Your task to perform on an android device: Clear the cart on ebay.com. Image 0: 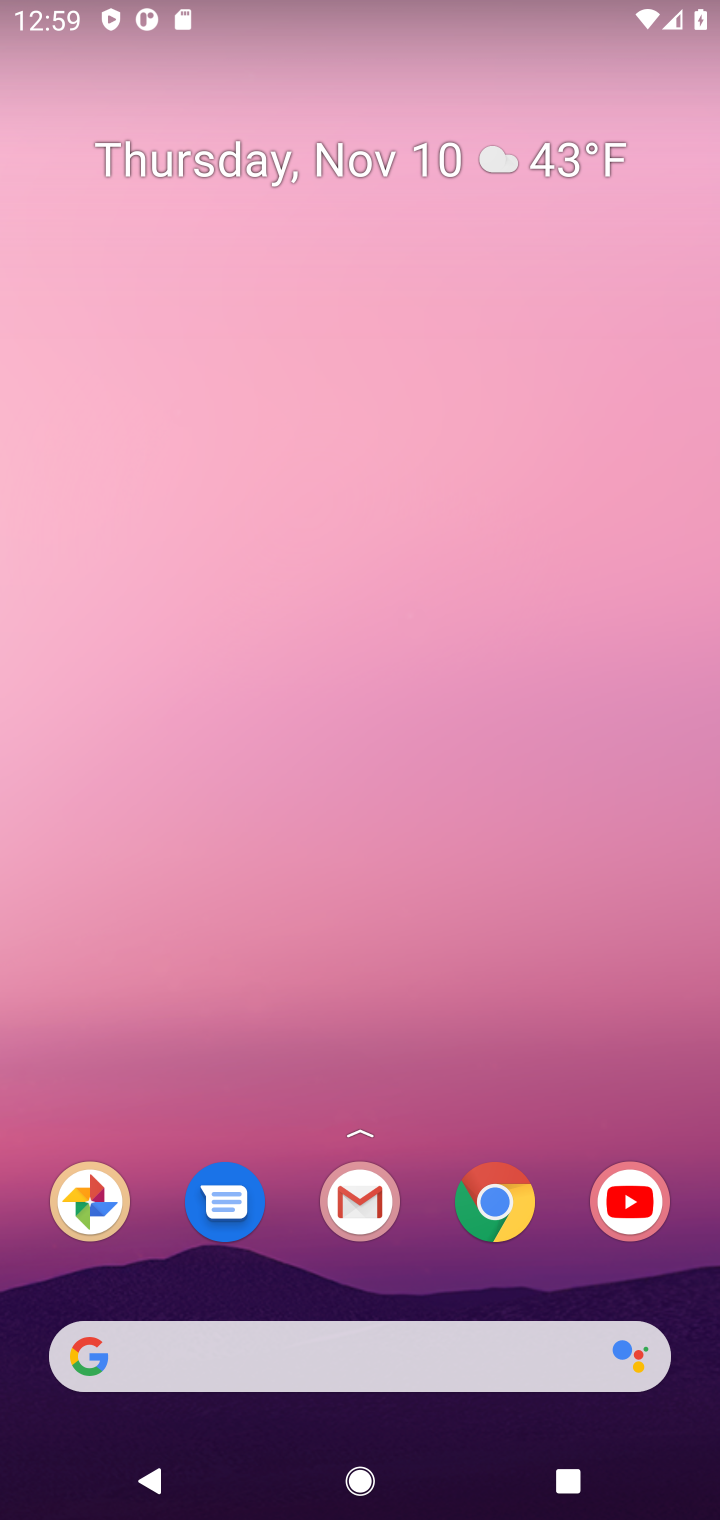
Step 0: click (499, 1214)
Your task to perform on an android device: Clear the cart on ebay.com. Image 1: 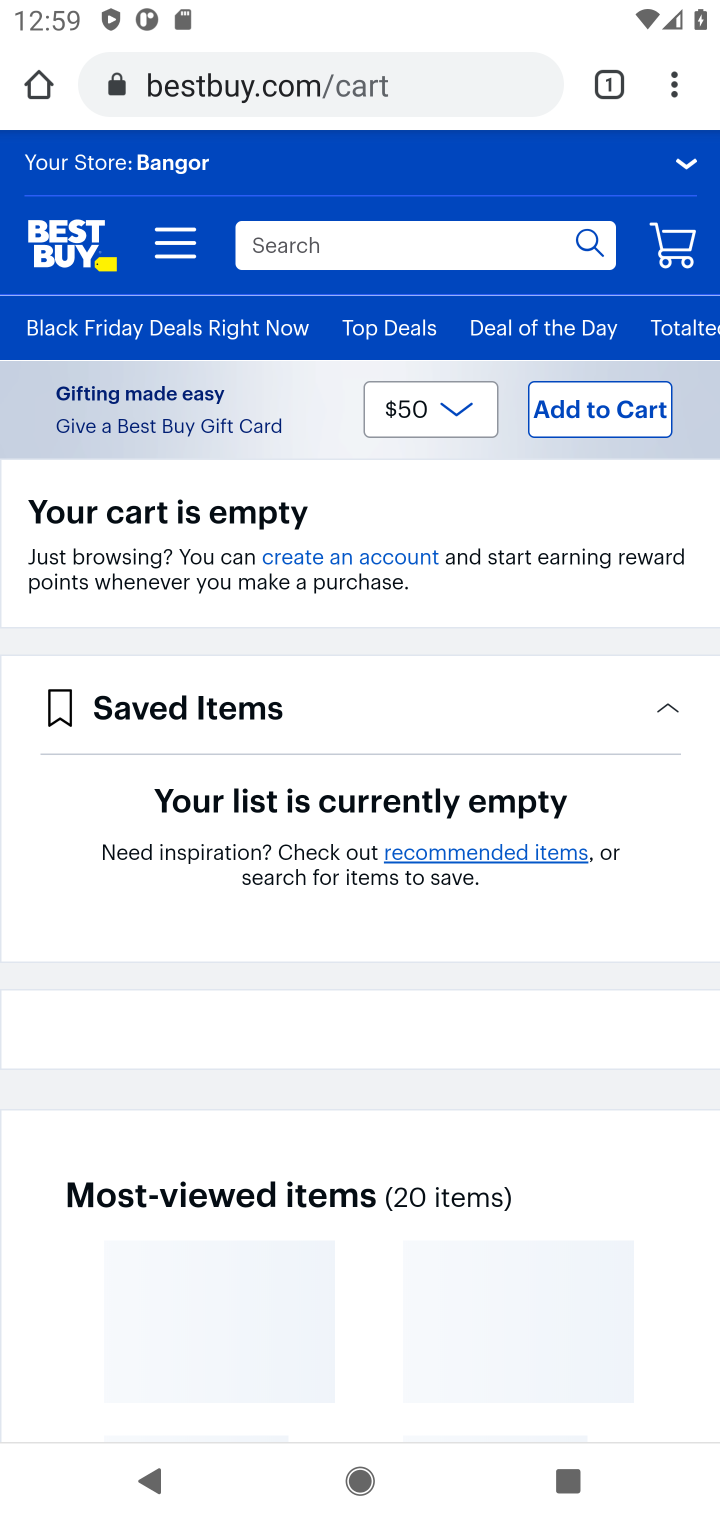
Step 1: click (36, 94)
Your task to perform on an android device: Clear the cart on ebay.com. Image 2: 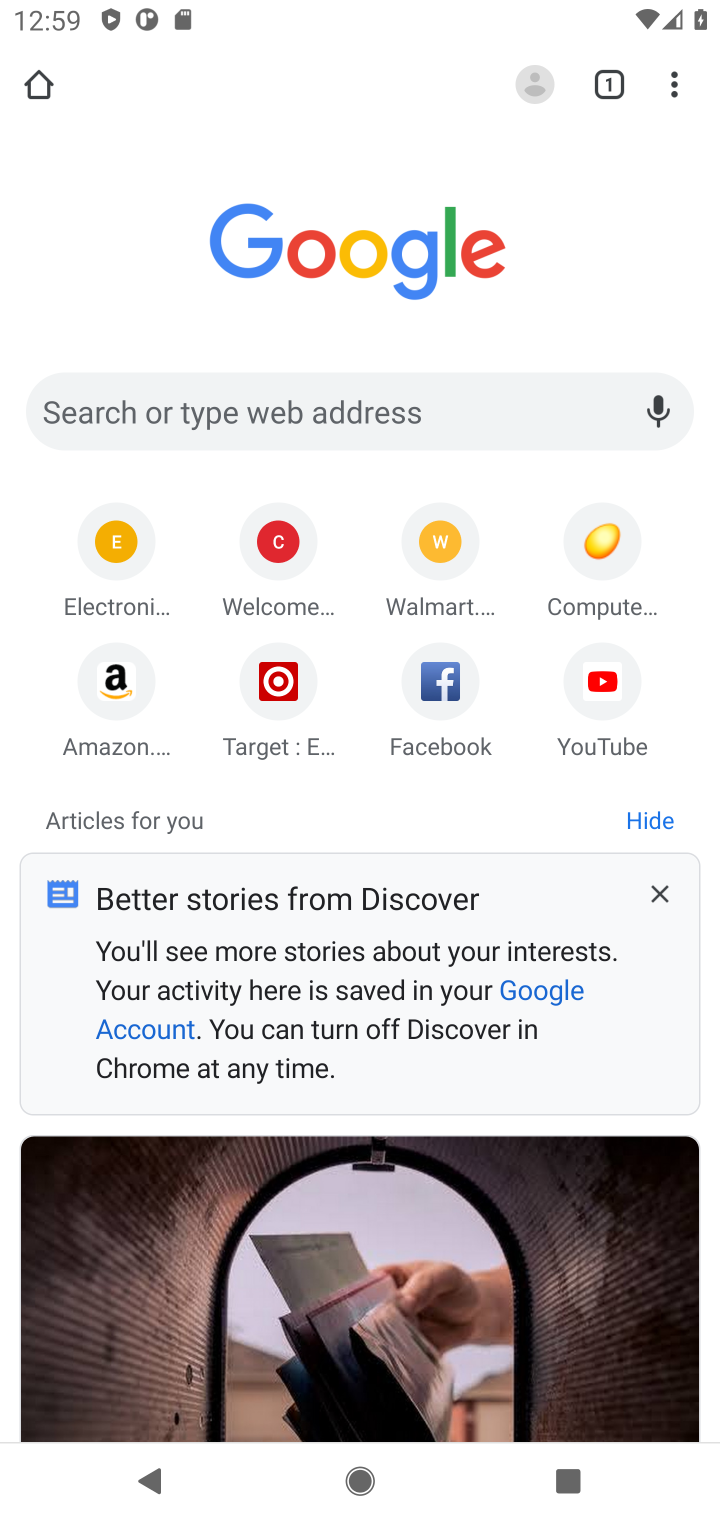
Step 2: click (434, 402)
Your task to perform on an android device: Clear the cart on ebay.com. Image 3: 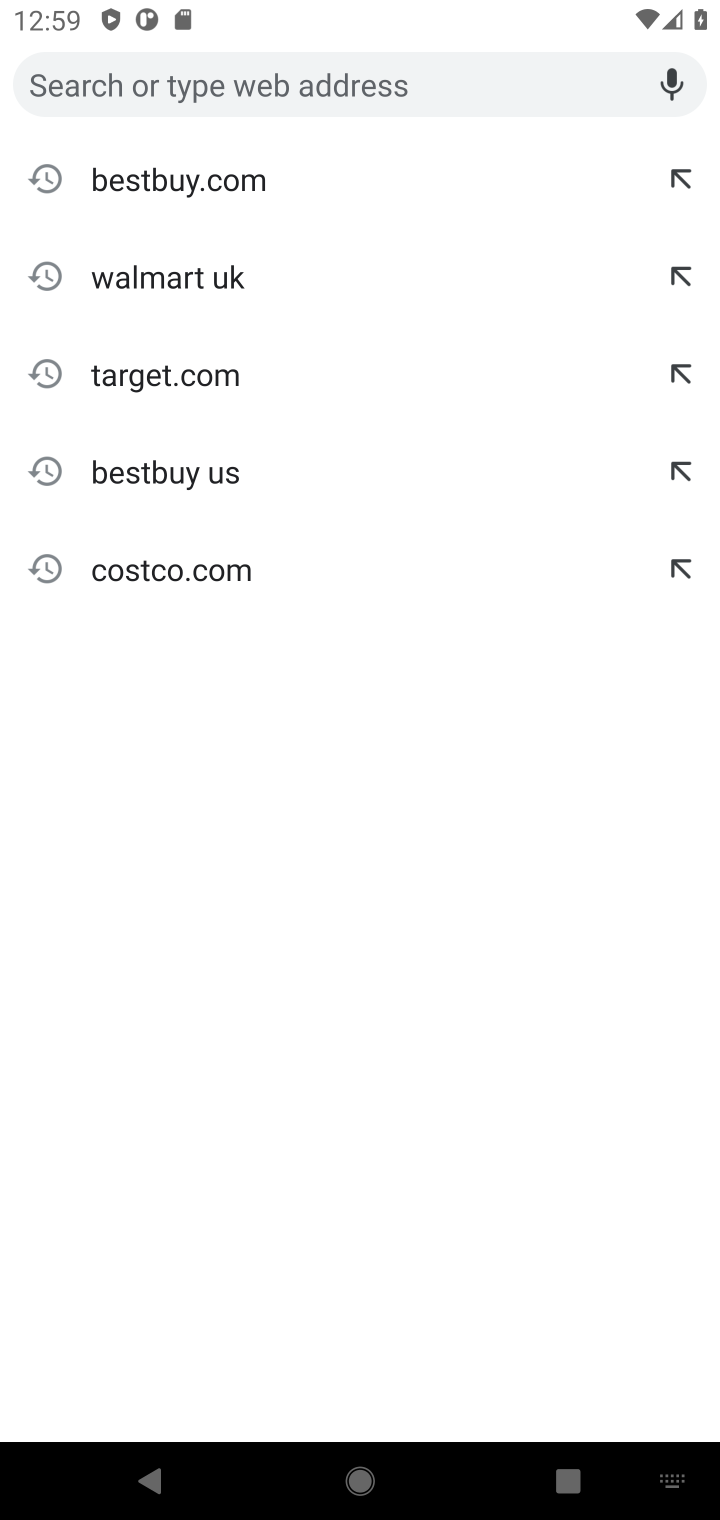
Step 3: type "ebay.com"
Your task to perform on an android device: Clear the cart on ebay.com. Image 4: 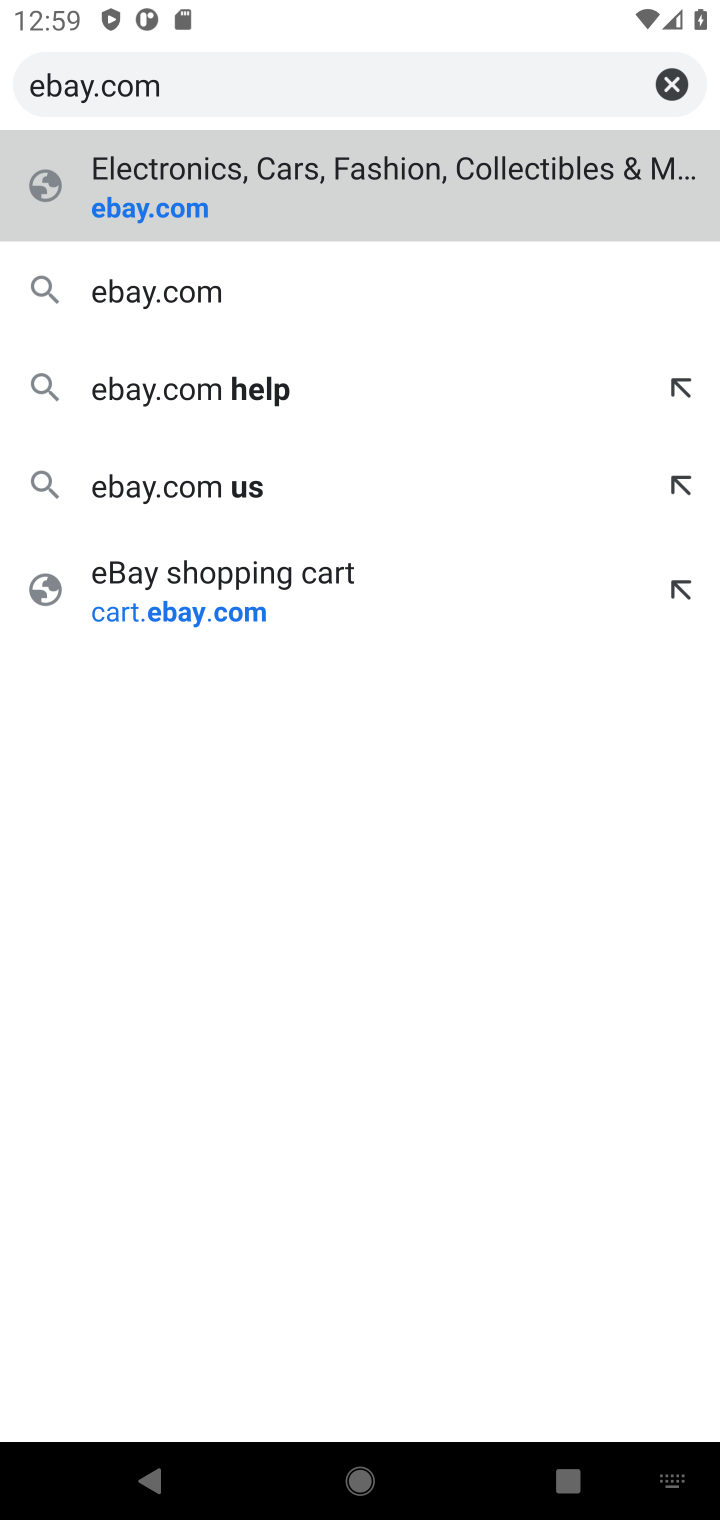
Step 4: press enter
Your task to perform on an android device: Clear the cart on ebay.com. Image 5: 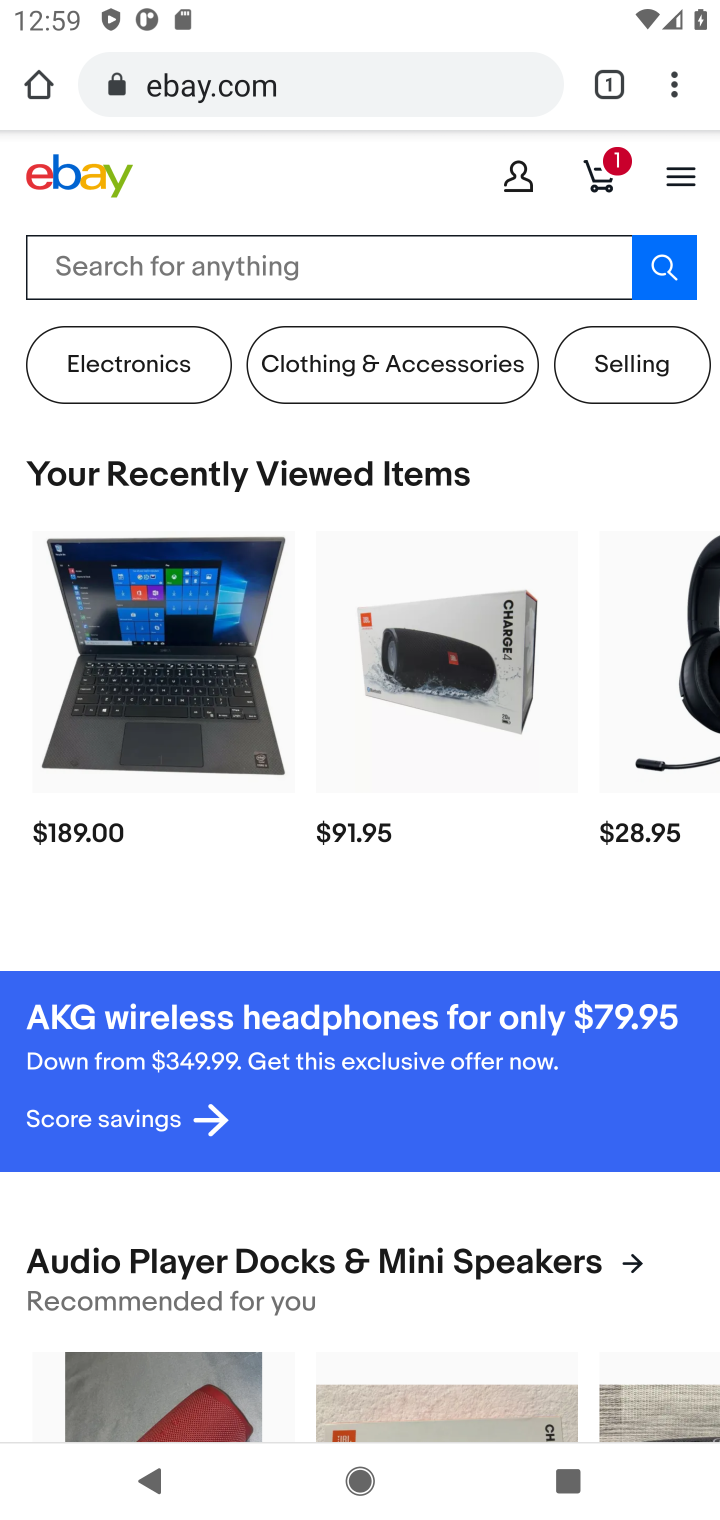
Step 5: click (608, 175)
Your task to perform on an android device: Clear the cart on ebay.com. Image 6: 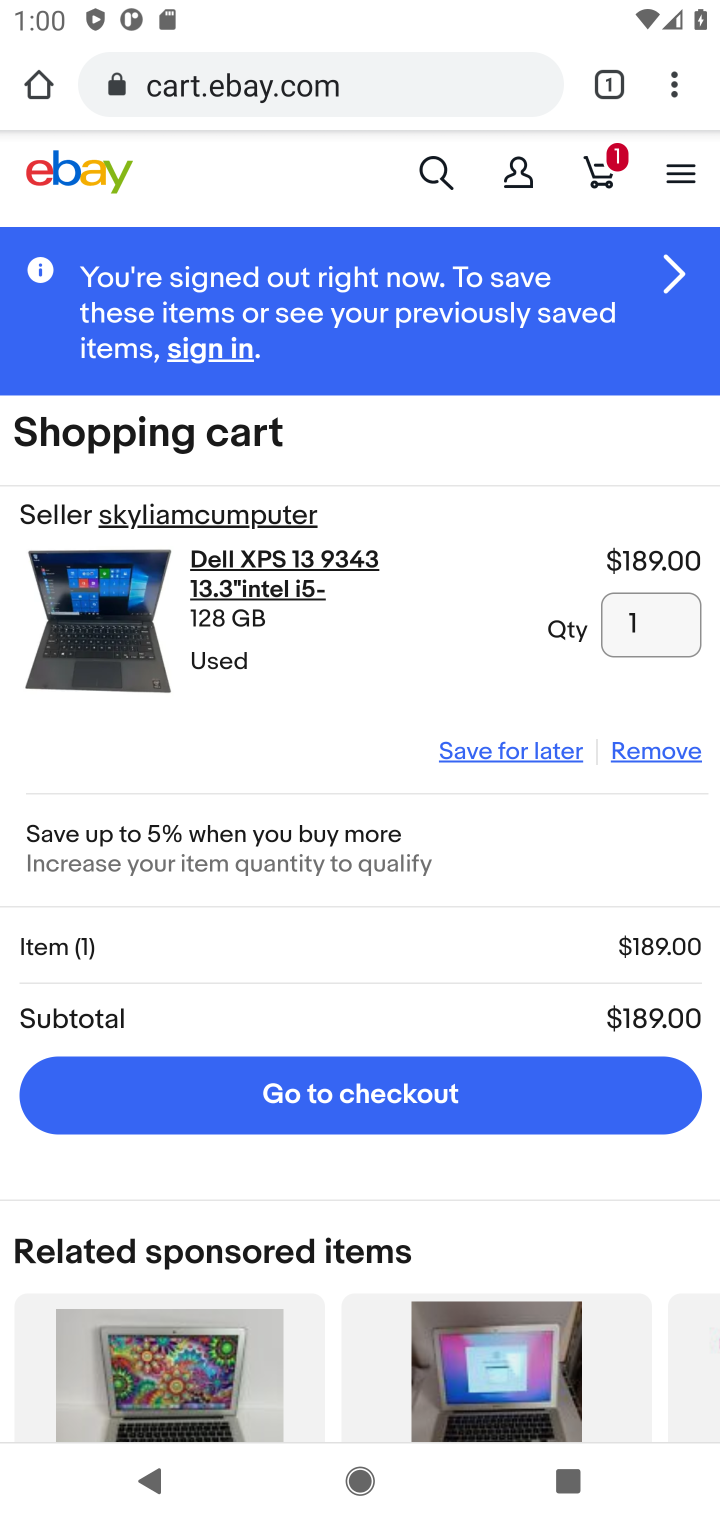
Step 6: click (656, 745)
Your task to perform on an android device: Clear the cart on ebay.com. Image 7: 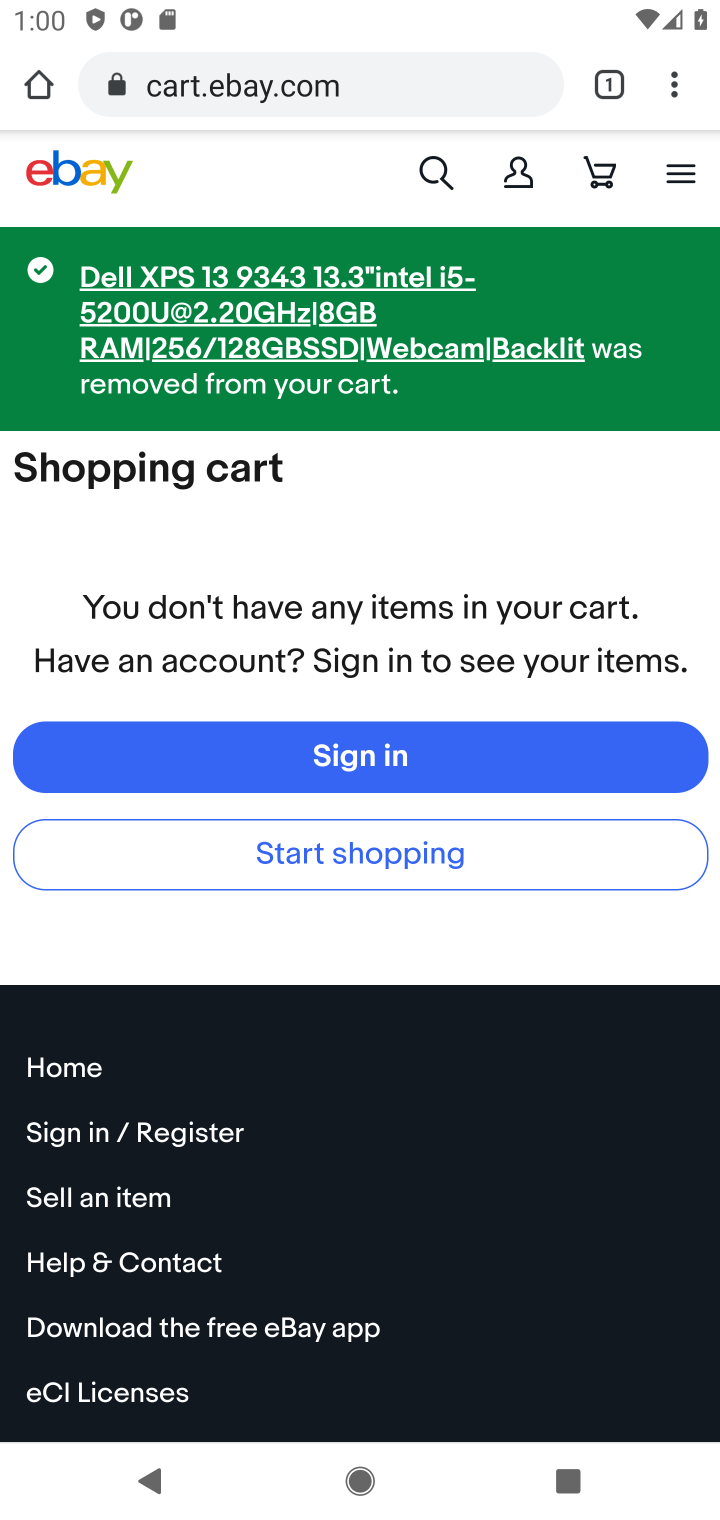
Step 7: task complete